Your task to perform on an android device: delete location history Image 0: 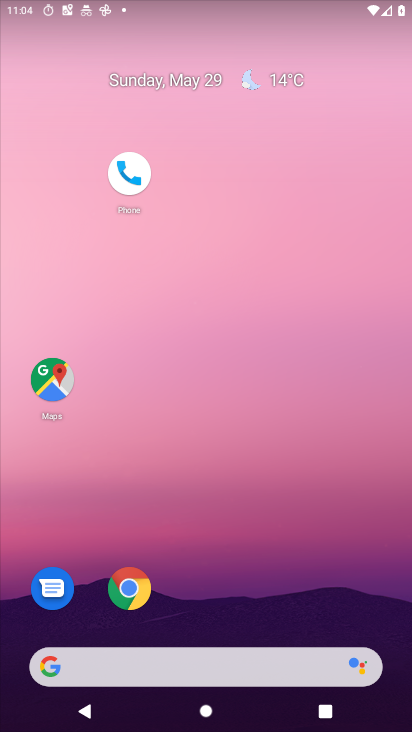
Step 0: drag from (273, 686) to (123, 2)
Your task to perform on an android device: delete location history Image 1: 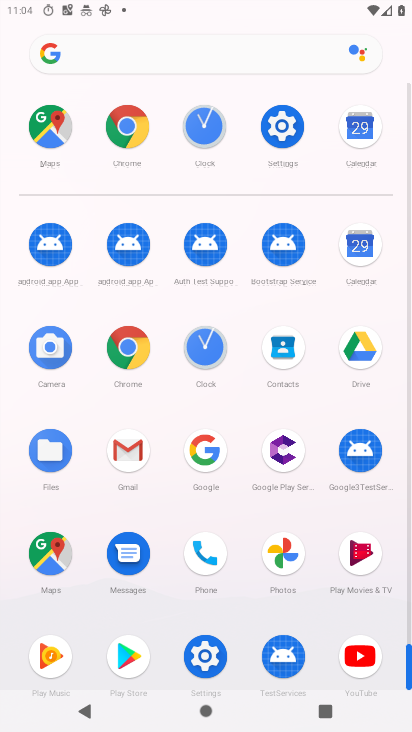
Step 1: click (281, 131)
Your task to perform on an android device: delete location history Image 2: 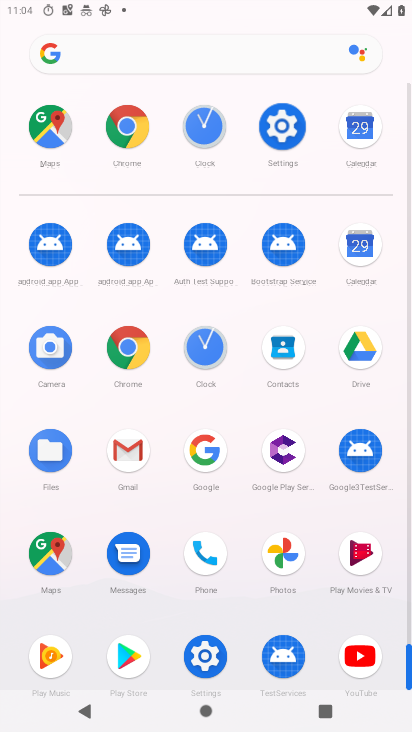
Step 2: click (284, 128)
Your task to perform on an android device: delete location history Image 3: 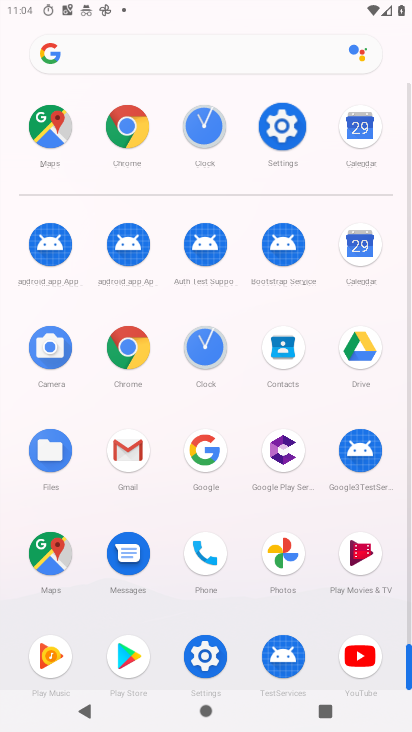
Step 3: click (284, 128)
Your task to perform on an android device: delete location history Image 4: 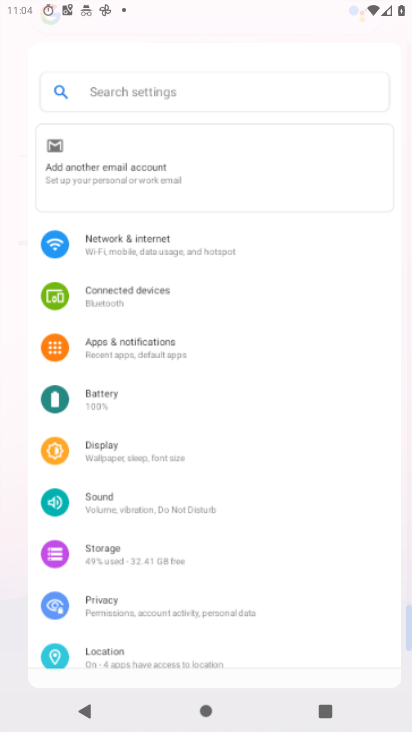
Step 4: click (284, 128)
Your task to perform on an android device: delete location history Image 5: 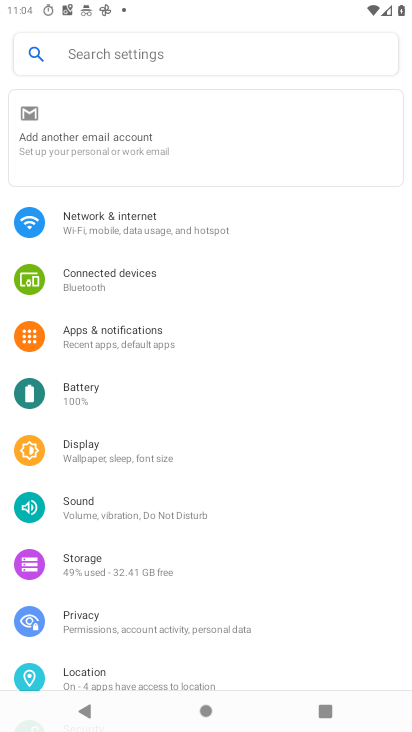
Step 5: drag from (155, 581) to (118, 189)
Your task to perform on an android device: delete location history Image 6: 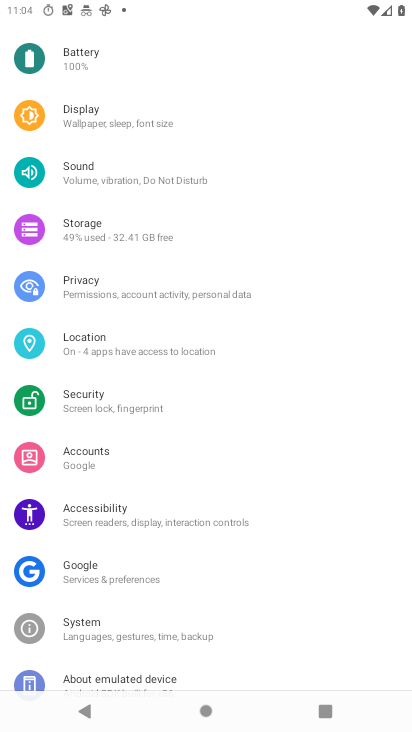
Step 6: drag from (172, 481) to (145, 165)
Your task to perform on an android device: delete location history Image 7: 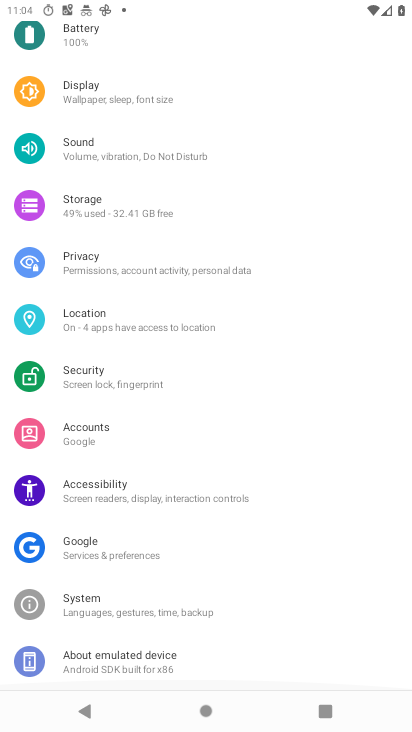
Step 7: drag from (144, 562) to (141, 67)
Your task to perform on an android device: delete location history Image 8: 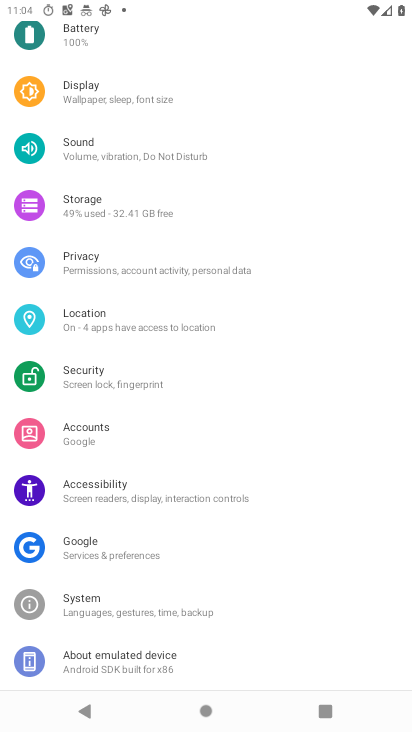
Step 8: click (97, 314)
Your task to perform on an android device: delete location history Image 9: 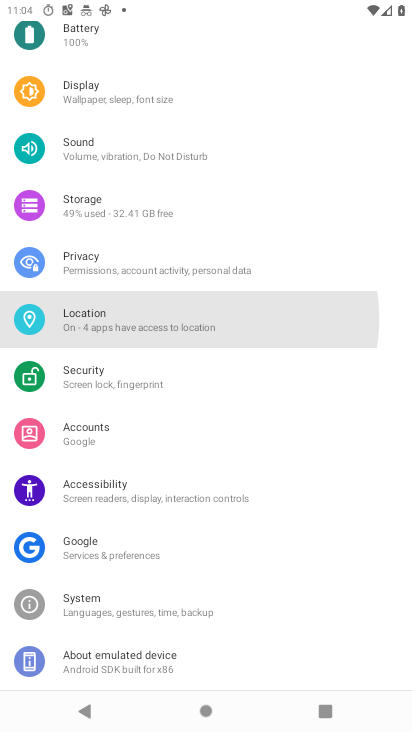
Step 9: click (101, 312)
Your task to perform on an android device: delete location history Image 10: 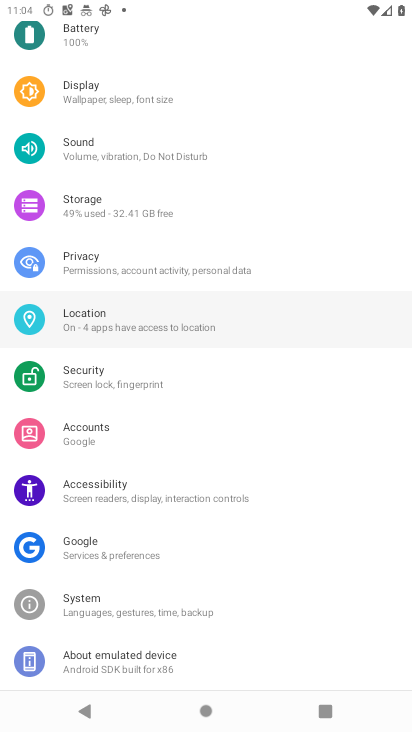
Step 10: click (100, 311)
Your task to perform on an android device: delete location history Image 11: 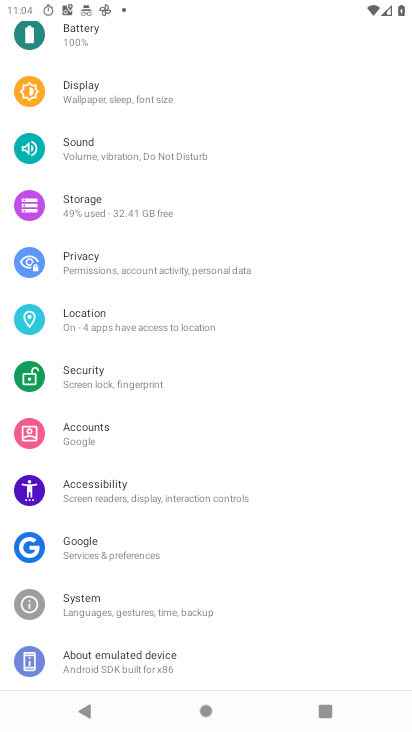
Step 11: click (98, 312)
Your task to perform on an android device: delete location history Image 12: 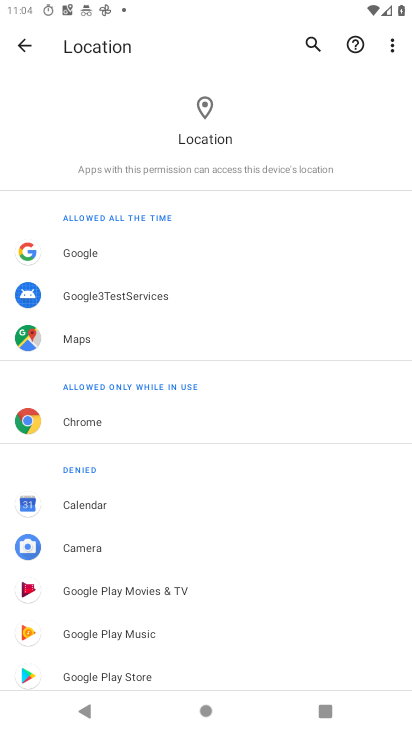
Step 12: click (10, 34)
Your task to perform on an android device: delete location history Image 13: 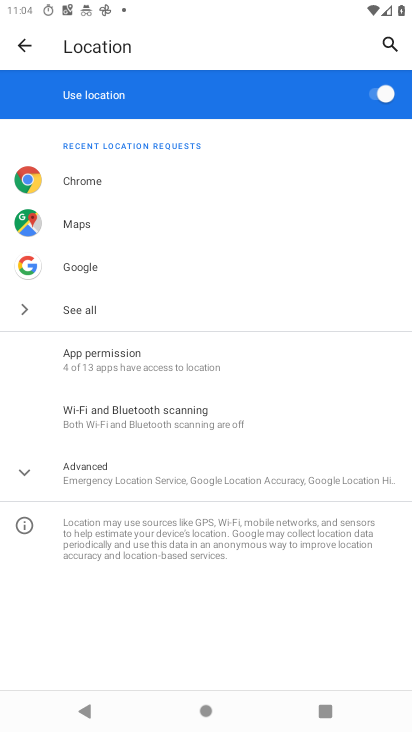
Step 13: click (102, 471)
Your task to perform on an android device: delete location history Image 14: 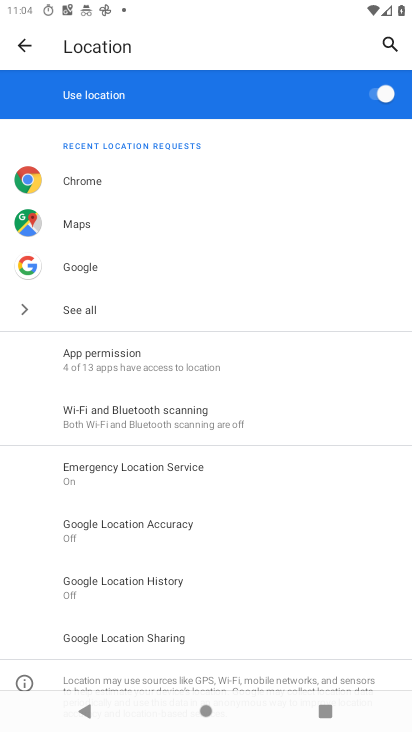
Step 14: click (135, 579)
Your task to perform on an android device: delete location history Image 15: 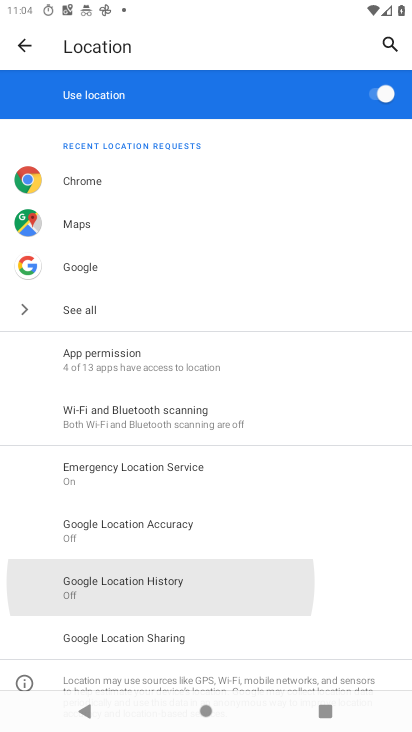
Step 15: click (135, 579)
Your task to perform on an android device: delete location history Image 16: 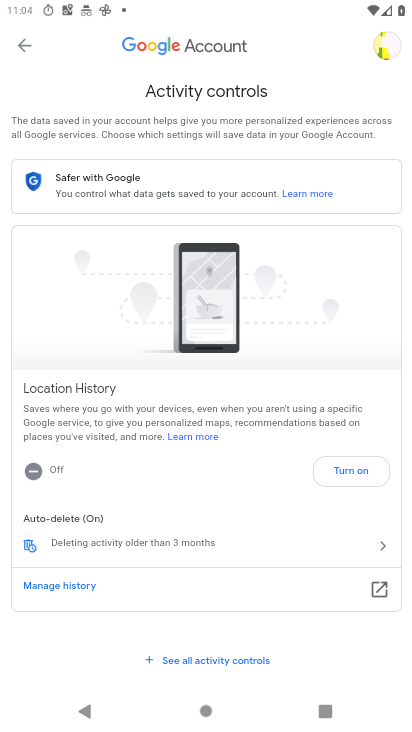
Step 16: drag from (149, 492) to (145, 217)
Your task to perform on an android device: delete location history Image 17: 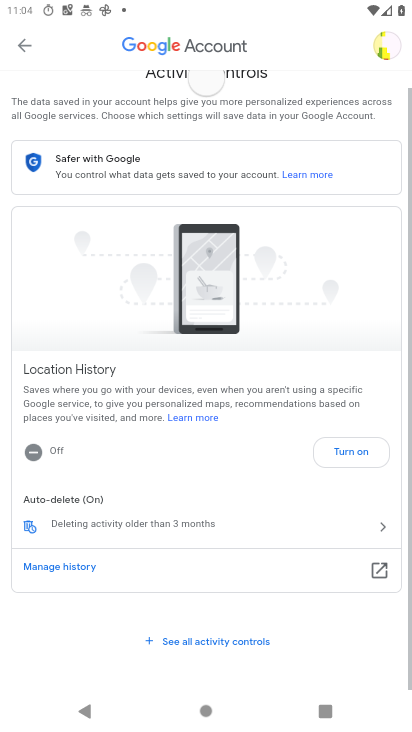
Step 17: drag from (153, 417) to (153, 168)
Your task to perform on an android device: delete location history Image 18: 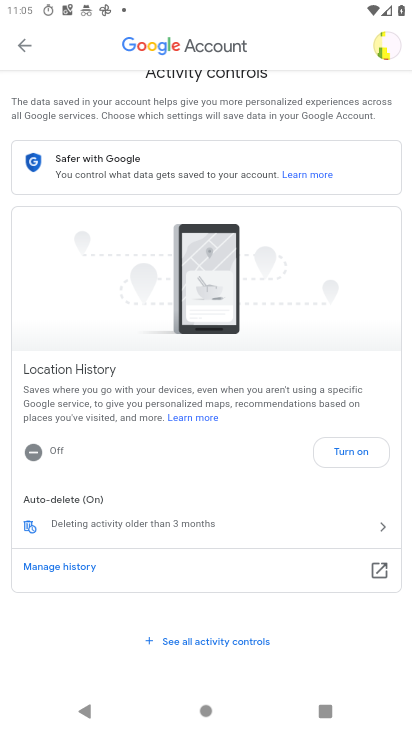
Step 18: drag from (87, 329) to (77, 271)
Your task to perform on an android device: delete location history Image 19: 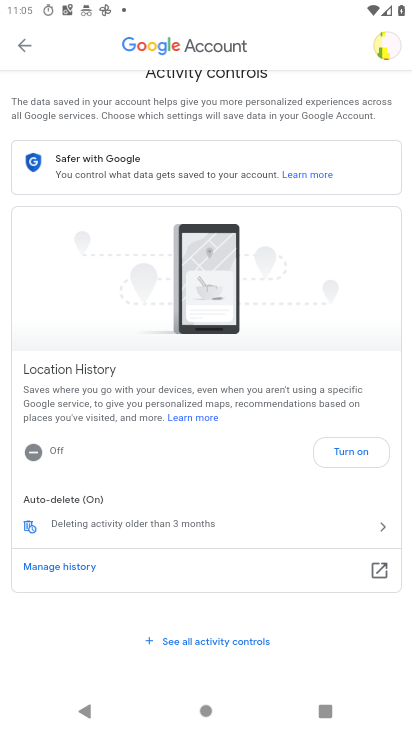
Step 19: click (38, 516)
Your task to perform on an android device: delete location history Image 20: 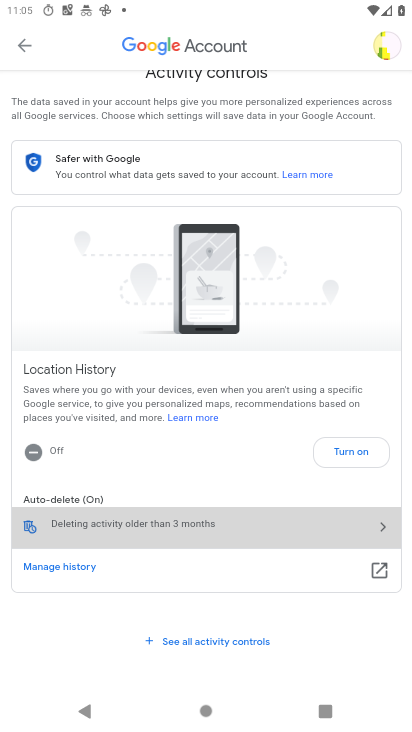
Step 20: click (38, 512)
Your task to perform on an android device: delete location history Image 21: 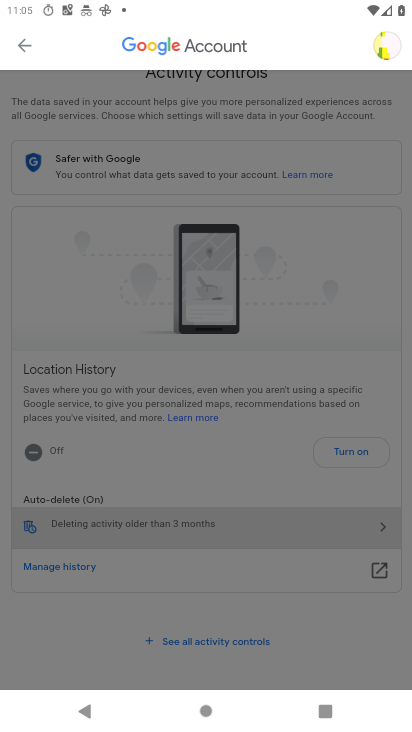
Step 21: click (35, 519)
Your task to perform on an android device: delete location history Image 22: 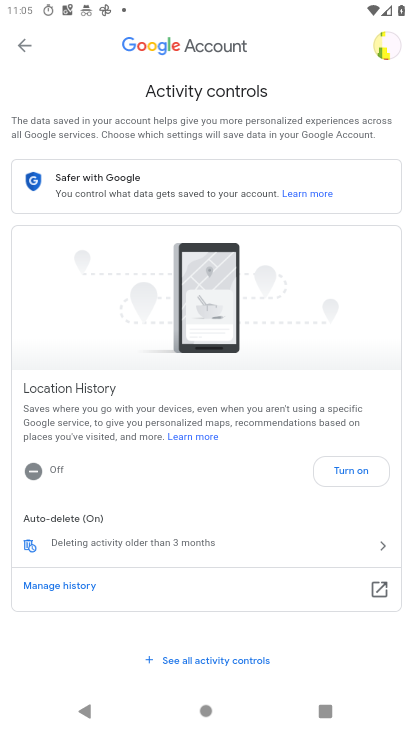
Step 22: click (34, 544)
Your task to perform on an android device: delete location history Image 23: 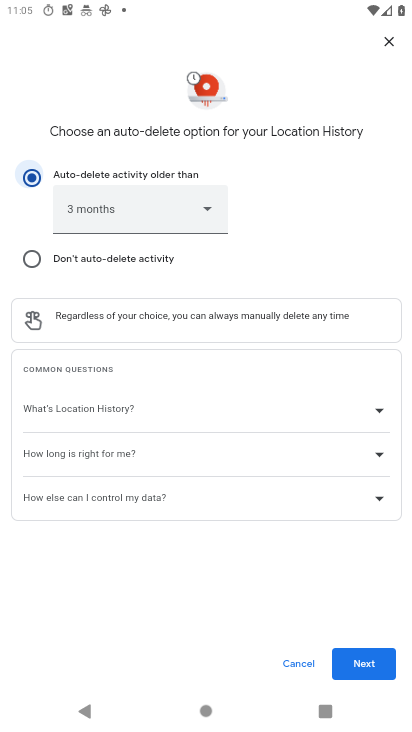
Step 23: click (366, 667)
Your task to perform on an android device: delete location history Image 24: 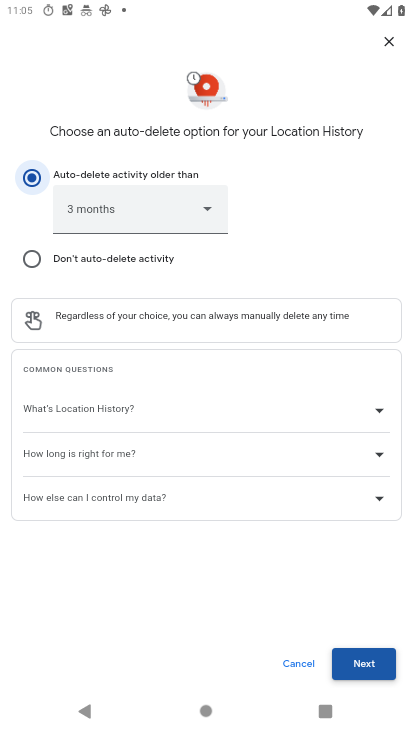
Step 24: click (366, 667)
Your task to perform on an android device: delete location history Image 25: 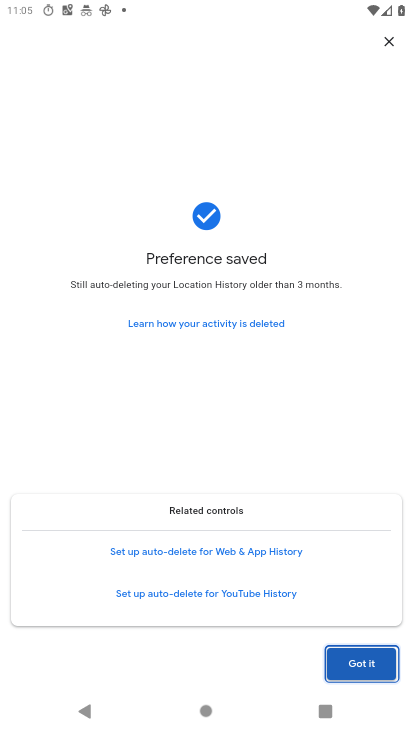
Step 25: click (360, 664)
Your task to perform on an android device: delete location history Image 26: 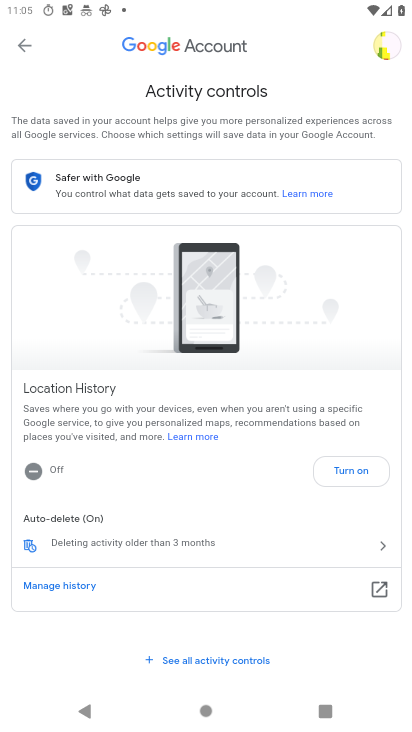
Step 26: task complete